Your task to perform on an android device: check the backup settings in the google photos Image 0: 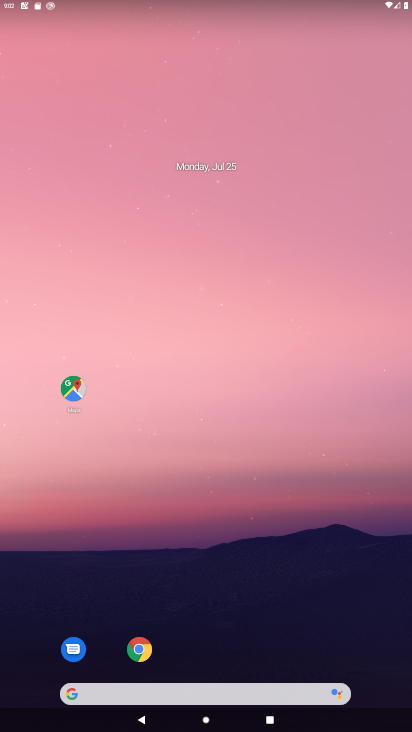
Step 0: drag from (230, 656) to (411, 319)
Your task to perform on an android device: check the backup settings in the google photos Image 1: 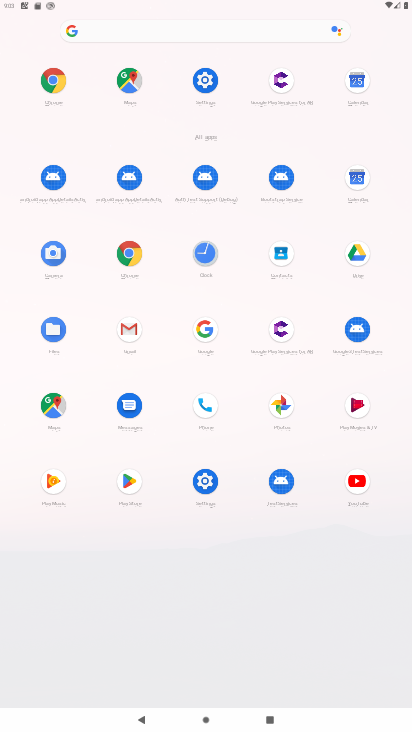
Step 1: click (288, 410)
Your task to perform on an android device: check the backup settings in the google photos Image 2: 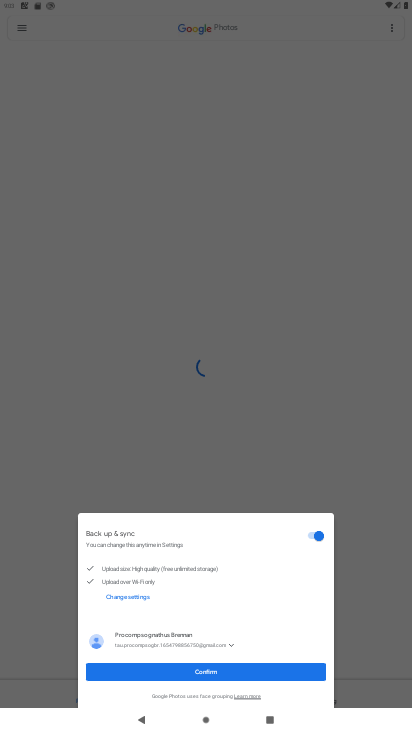
Step 2: click (150, 670)
Your task to perform on an android device: check the backup settings in the google photos Image 3: 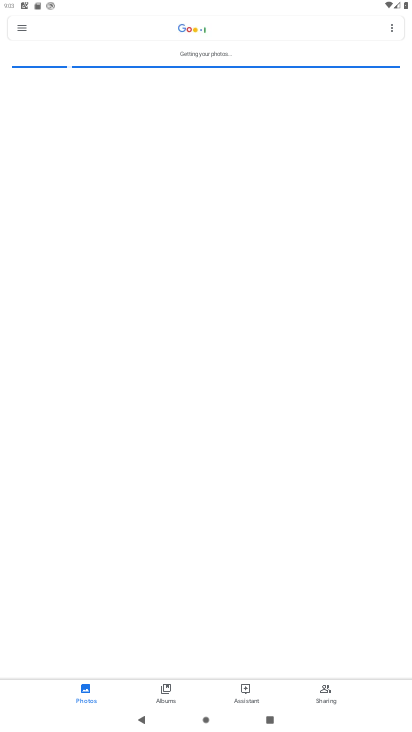
Step 3: click (19, 33)
Your task to perform on an android device: check the backup settings in the google photos Image 4: 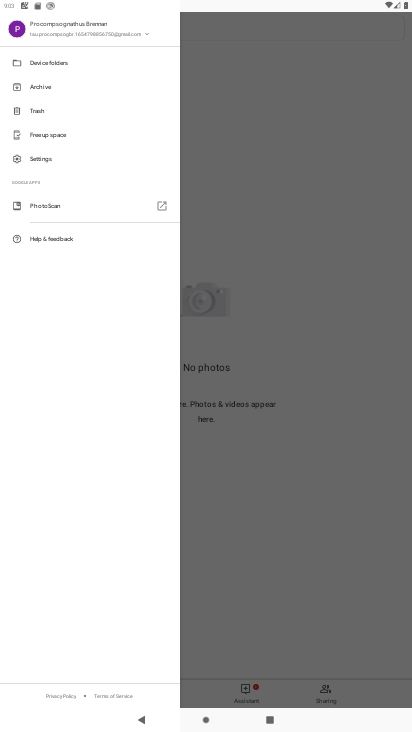
Step 4: click (24, 154)
Your task to perform on an android device: check the backup settings in the google photos Image 5: 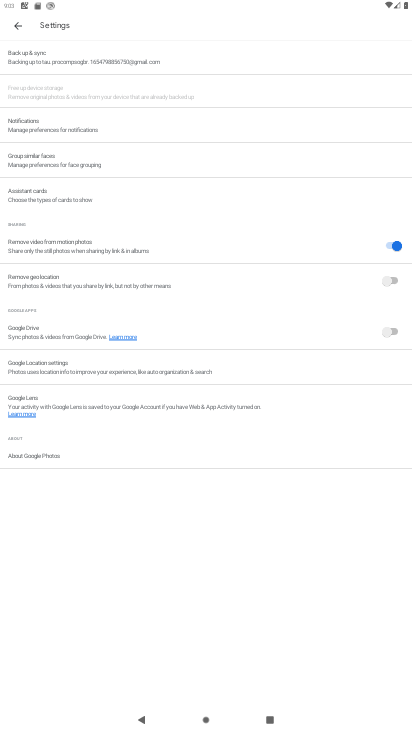
Step 5: click (20, 44)
Your task to perform on an android device: check the backup settings in the google photos Image 6: 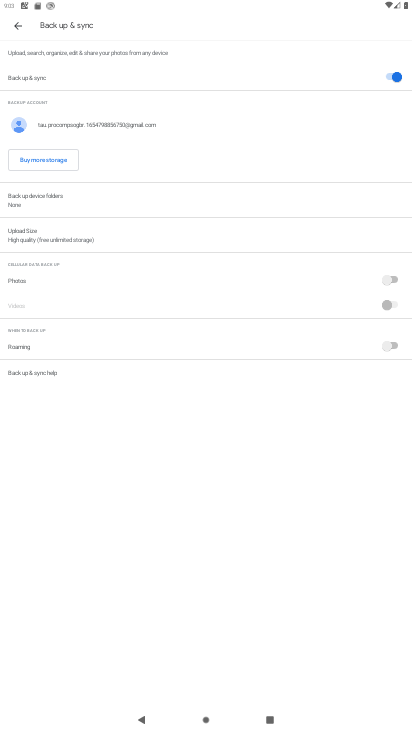
Step 6: task complete